Your task to perform on an android device: turn off javascript in the chrome app Image 0: 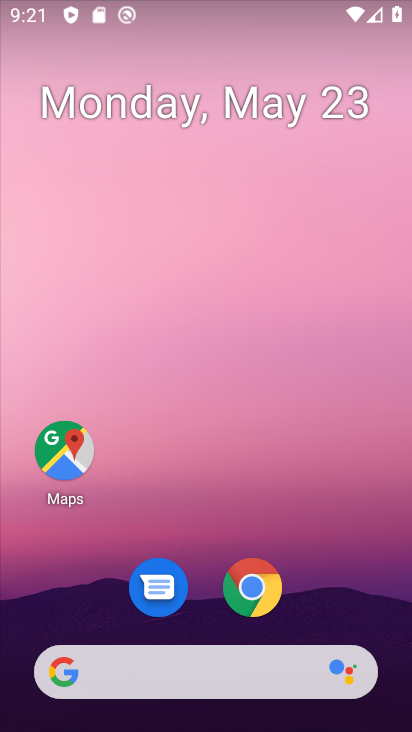
Step 0: drag from (360, 554) to (304, 2)
Your task to perform on an android device: turn off javascript in the chrome app Image 1: 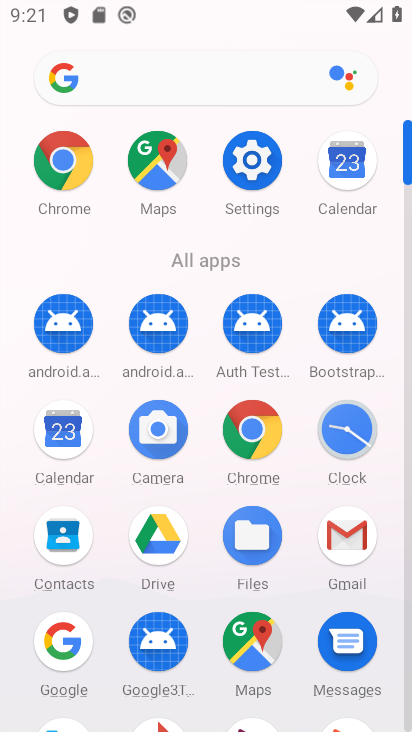
Step 1: click (80, 162)
Your task to perform on an android device: turn off javascript in the chrome app Image 2: 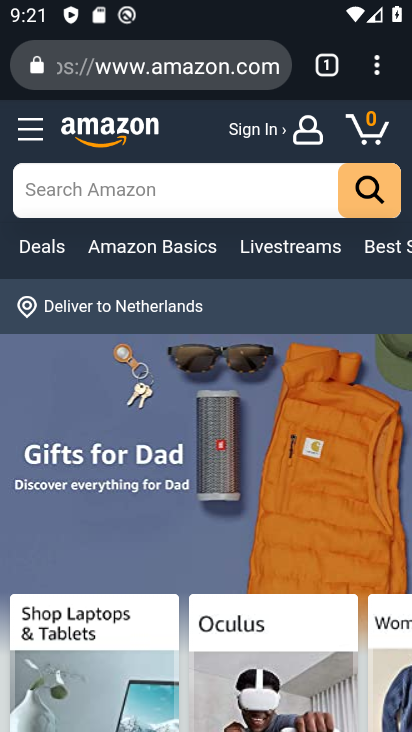
Step 2: drag from (375, 64) to (118, 634)
Your task to perform on an android device: turn off javascript in the chrome app Image 3: 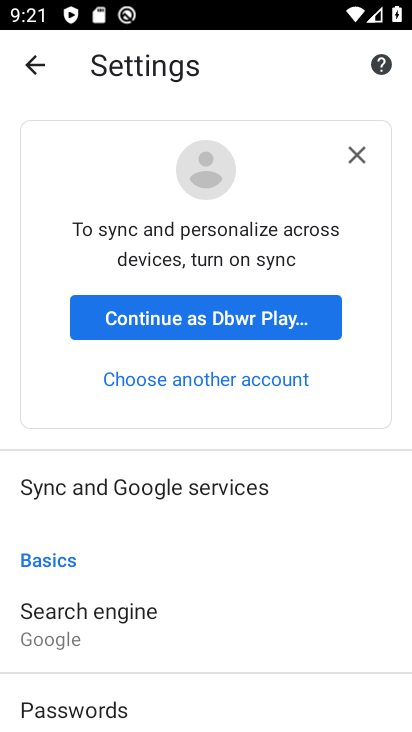
Step 3: drag from (151, 624) to (180, 212)
Your task to perform on an android device: turn off javascript in the chrome app Image 4: 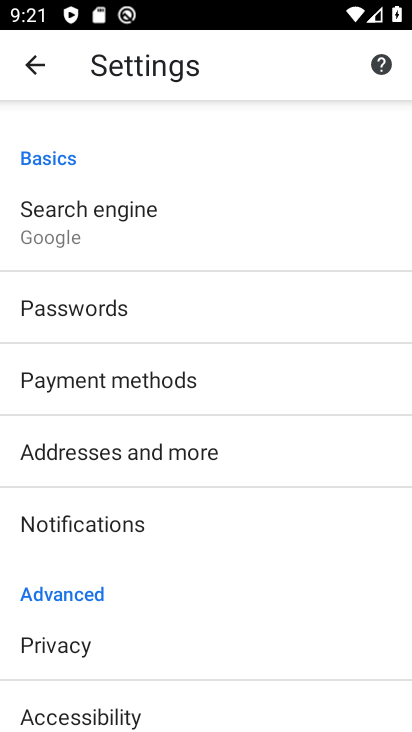
Step 4: drag from (114, 556) to (66, 191)
Your task to perform on an android device: turn off javascript in the chrome app Image 5: 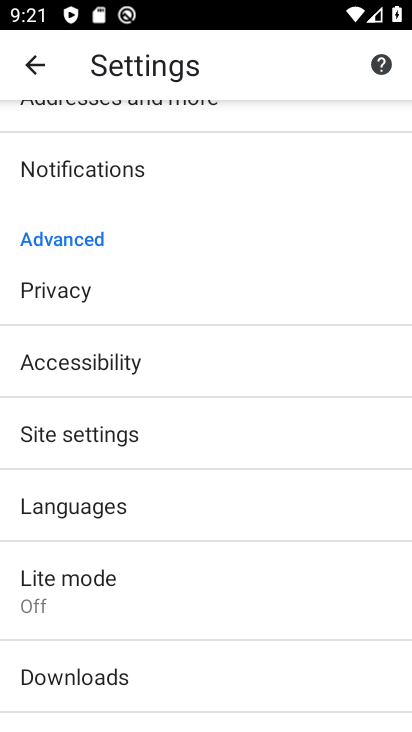
Step 5: click (50, 432)
Your task to perform on an android device: turn off javascript in the chrome app Image 6: 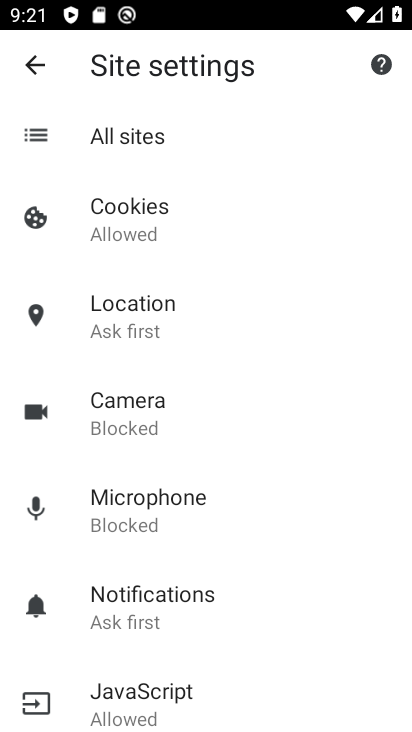
Step 6: drag from (165, 565) to (109, 247)
Your task to perform on an android device: turn off javascript in the chrome app Image 7: 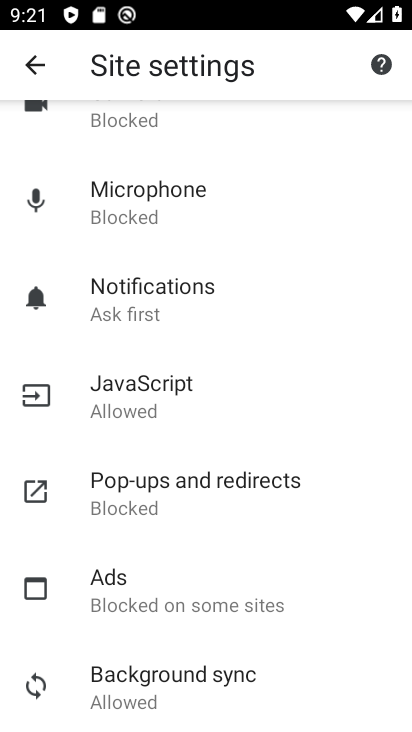
Step 7: click (122, 416)
Your task to perform on an android device: turn off javascript in the chrome app Image 8: 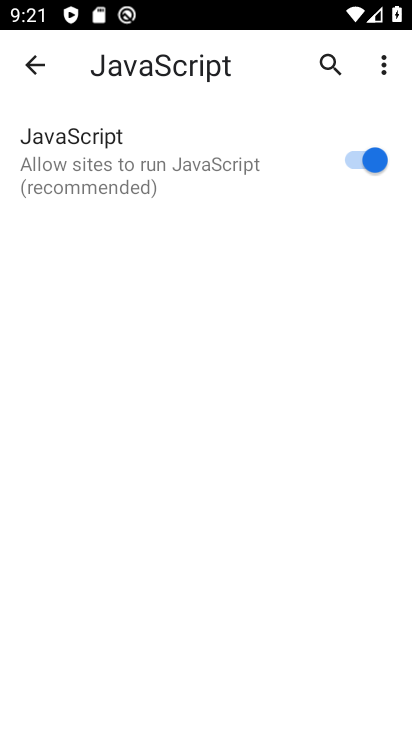
Step 8: click (360, 165)
Your task to perform on an android device: turn off javascript in the chrome app Image 9: 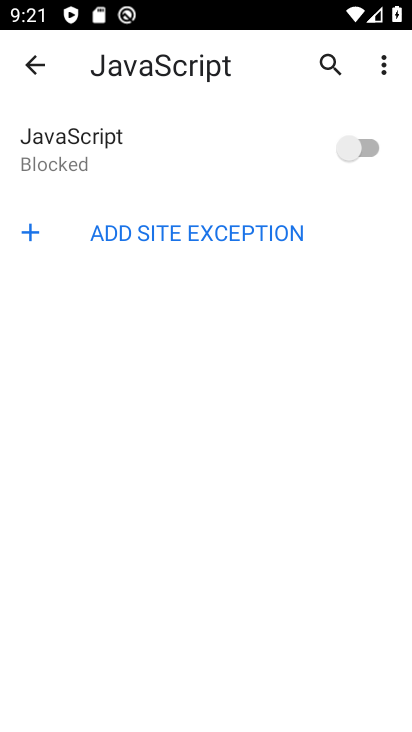
Step 9: task complete